Your task to perform on an android device: uninstall "Chime – Mobile Banking" Image 0: 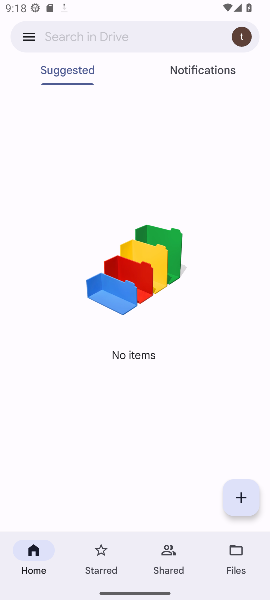
Step 0: press home button
Your task to perform on an android device: uninstall "Chime – Mobile Banking" Image 1: 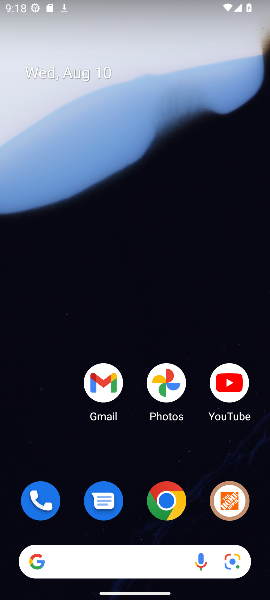
Step 1: drag from (141, 527) to (134, 62)
Your task to perform on an android device: uninstall "Chime – Mobile Banking" Image 2: 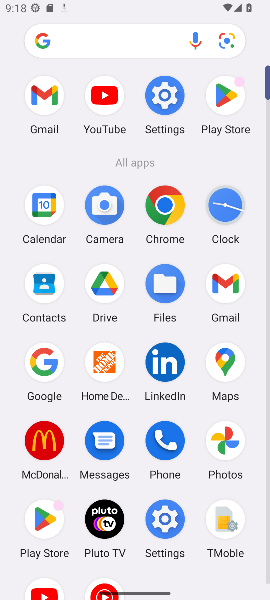
Step 2: click (225, 108)
Your task to perform on an android device: uninstall "Chime – Mobile Banking" Image 3: 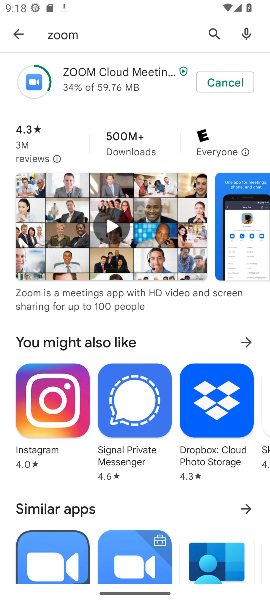
Step 3: click (217, 26)
Your task to perform on an android device: uninstall "Chime – Mobile Banking" Image 4: 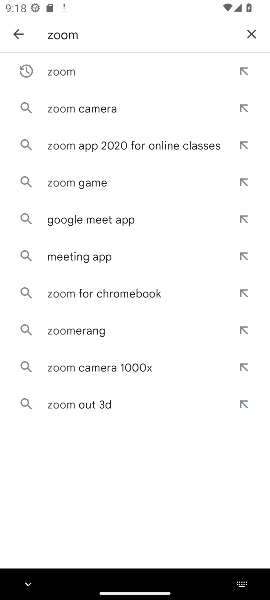
Step 4: click (243, 35)
Your task to perform on an android device: uninstall "Chime – Mobile Banking" Image 5: 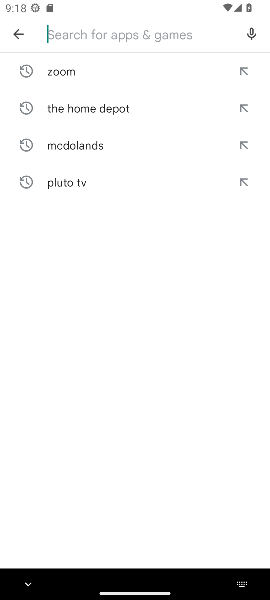
Step 5: type "chime"
Your task to perform on an android device: uninstall "Chime – Mobile Banking" Image 6: 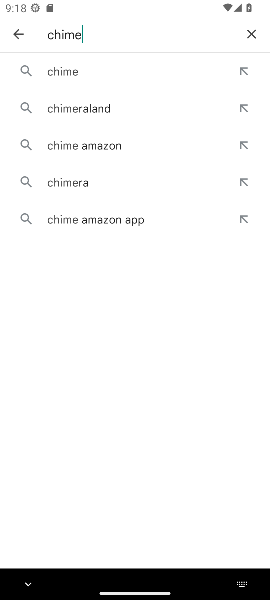
Step 6: click (138, 78)
Your task to perform on an android device: uninstall "Chime – Mobile Banking" Image 7: 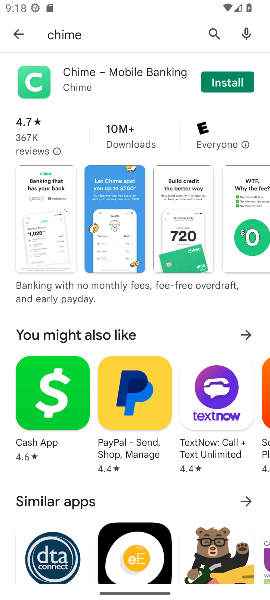
Step 7: click (210, 85)
Your task to perform on an android device: uninstall "Chime – Mobile Banking" Image 8: 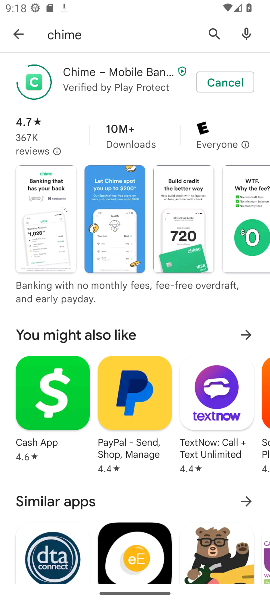
Step 8: task complete